Your task to perform on an android device: move an email to a new category in the gmail app Image 0: 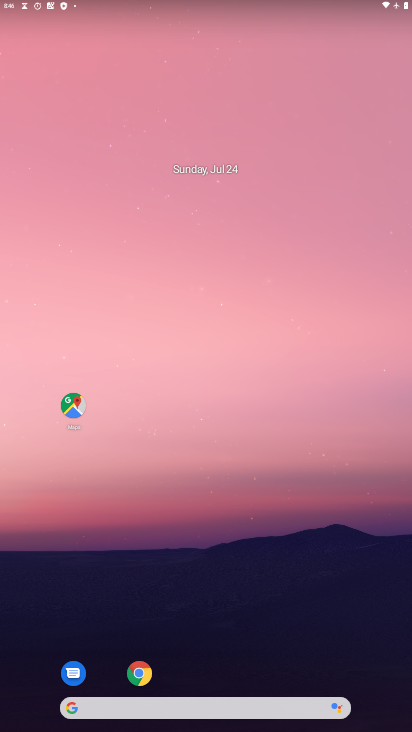
Step 0: drag from (207, 645) to (253, 33)
Your task to perform on an android device: move an email to a new category in the gmail app Image 1: 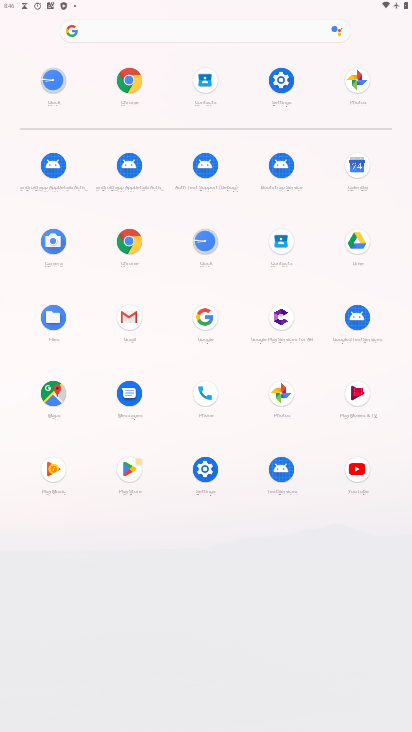
Step 1: click (132, 315)
Your task to perform on an android device: move an email to a new category in the gmail app Image 2: 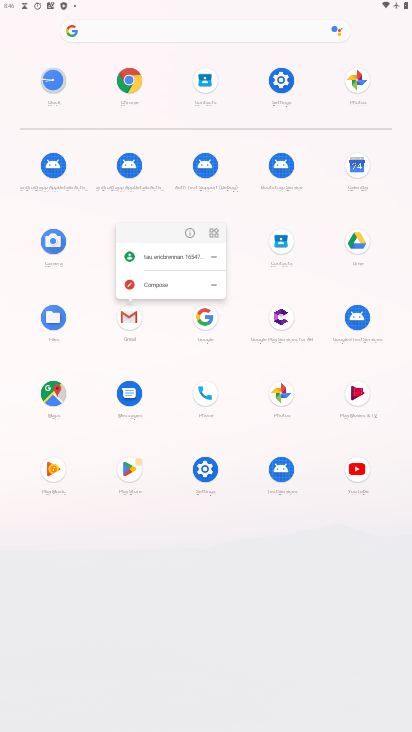
Step 2: click (188, 231)
Your task to perform on an android device: move an email to a new category in the gmail app Image 3: 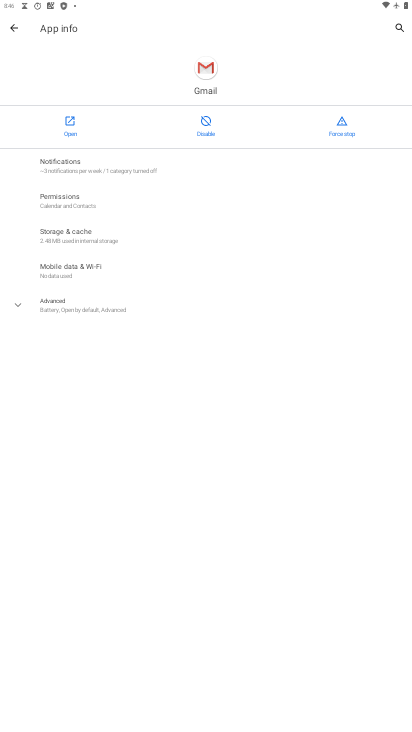
Step 3: click (58, 116)
Your task to perform on an android device: move an email to a new category in the gmail app Image 4: 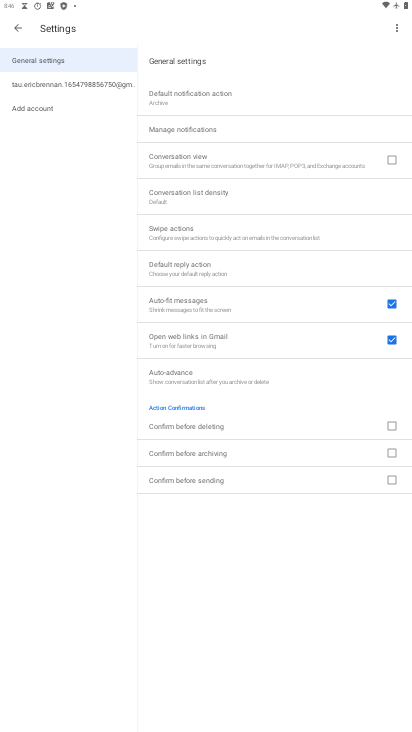
Step 4: drag from (203, 514) to (277, 82)
Your task to perform on an android device: move an email to a new category in the gmail app Image 5: 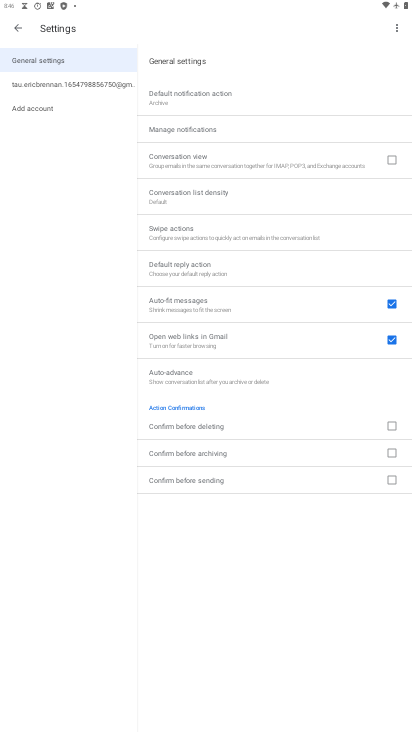
Step 5: click (63, 60)
Your task to perform on an android device: move an email to a new category in the gmail app Image 6: 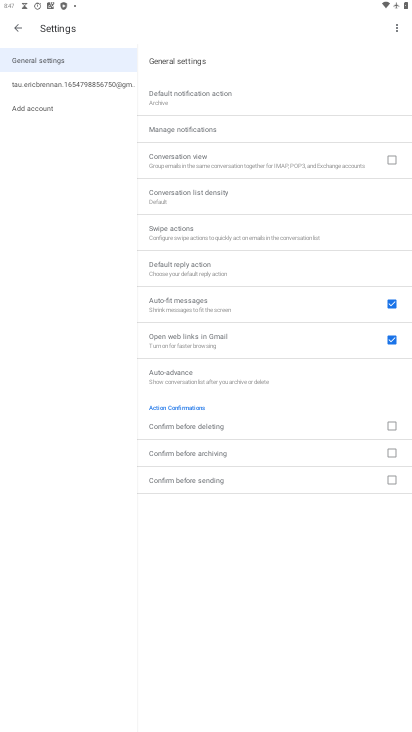
Step 6: click (36, 80)
Your task to perform on an android device: move an email to a new category in the gmail app Image 7: 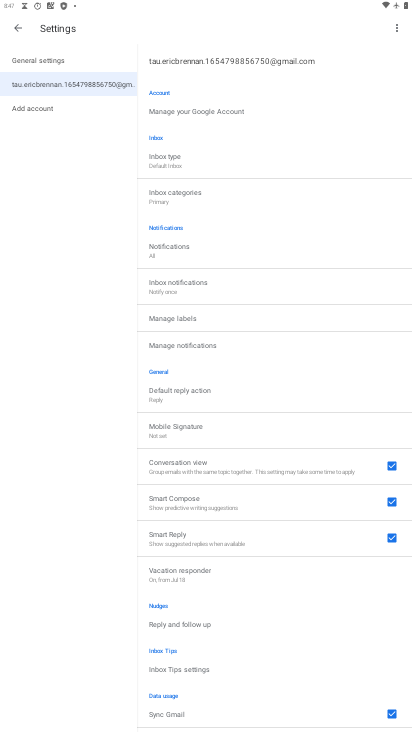
Step 7: drag from (279, 547) to (315, 406)
Your task to perform on an android device: move an email to a new category in the gmail app Image 8: 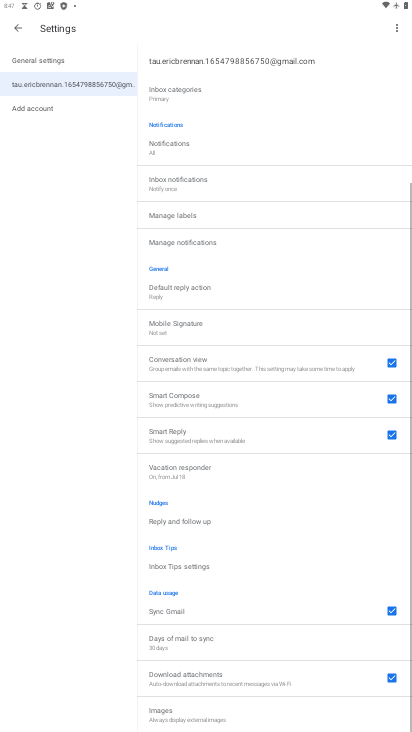
Step 8: drag from (270, 671) to (303, 347)
Your task to perform on an android device: move an email to a new category in the gmail app Image 9: 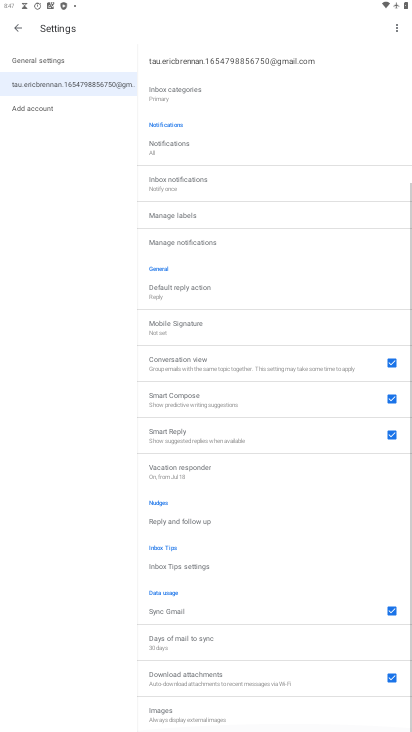
Step 9: drag from (316, 191) to (408, 411)
Your task to perform on an android device: move an email to a new category in the gmail app Image 10: 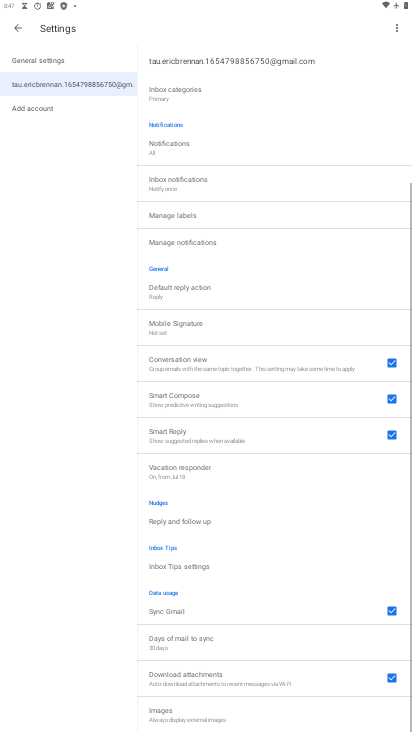
Step 10: drag from (235, 247) to (357, 719)
Your task to perform on an android device: move an email to a new category in the gmail app Image 11: 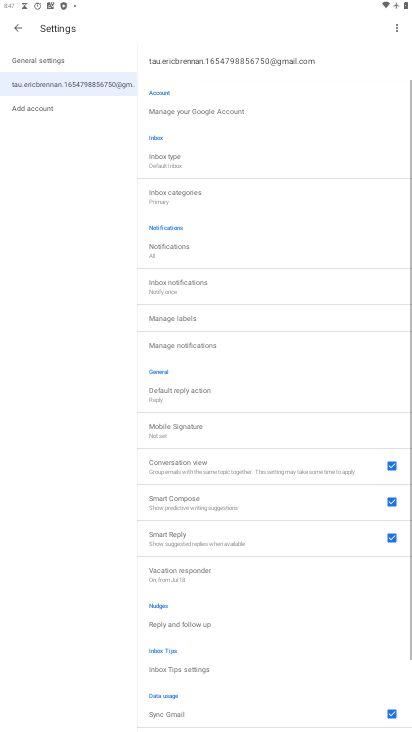
Step 11: drag from (282, 146) to (5, 379)
Your task to perform on an android device: move an email to a new category in the gmail app Image 12: 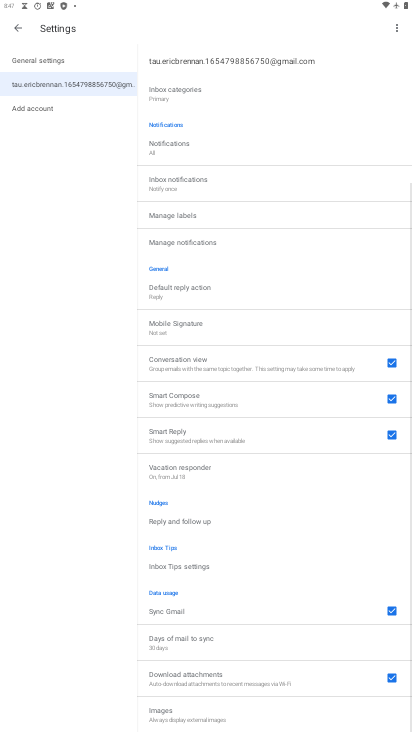
Step 12: click (14, 28)
Your task to perform on an android device: move an email to a new category in the gmail app Image 13: 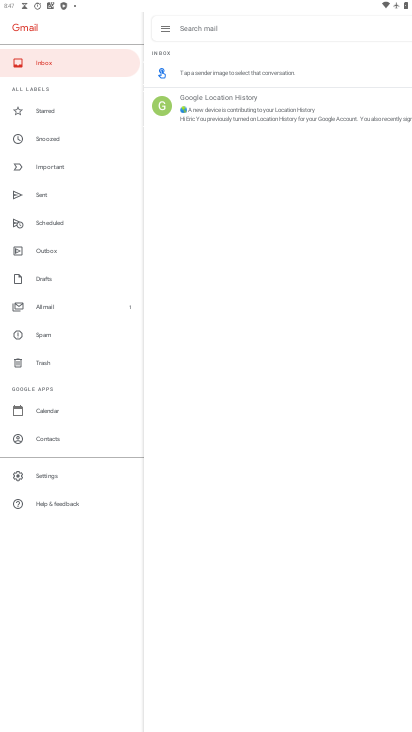
Step 13: click (49, 325)
Your task to perform on an android device: move an email to a new category in the gmail app Image 14: 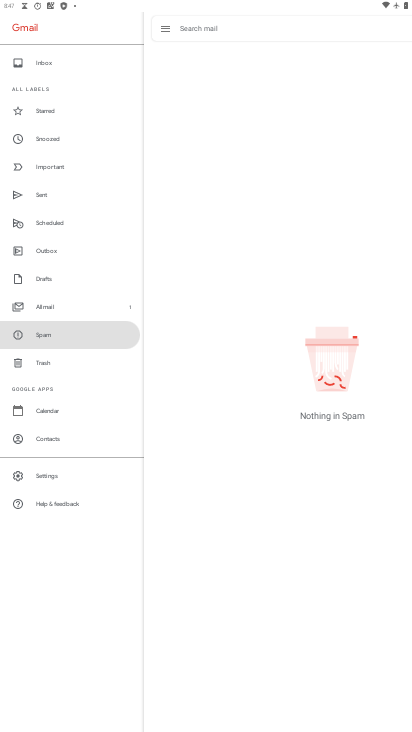
Step 14: drag from (193, 516) to (238, 144)
Your task to perform on an android device: move an email to a new category in the gmail app Image 15: 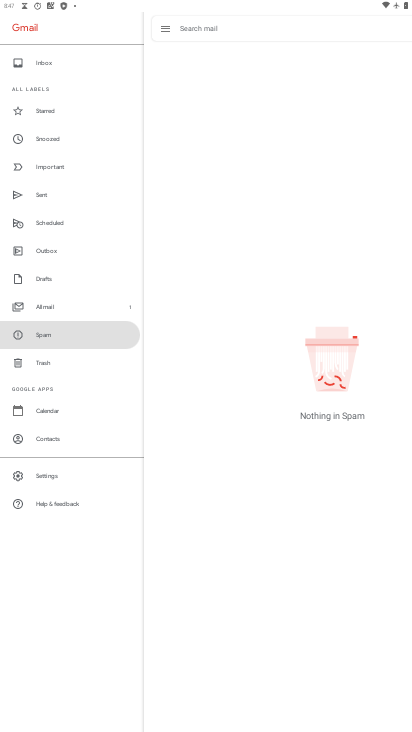
Step 15: click (52, 68)
Your task to perform on an android device: move an email to a new category in the gmail app Image 16: 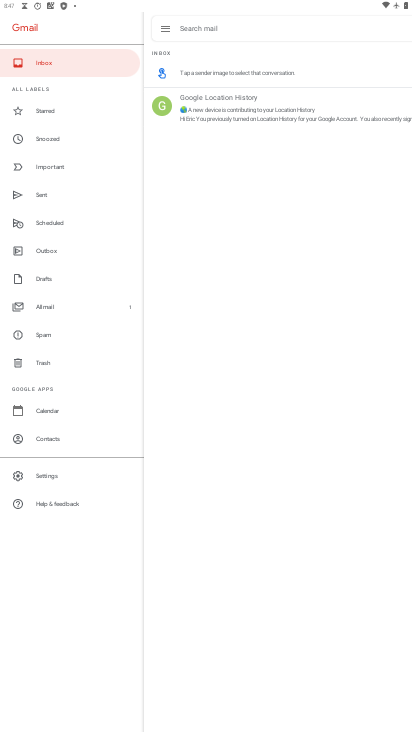
Step 16: drag from (201, 589) to (214, 365)
Your task to perform on an android device: move an email to a new category in the gmail app Image 17: 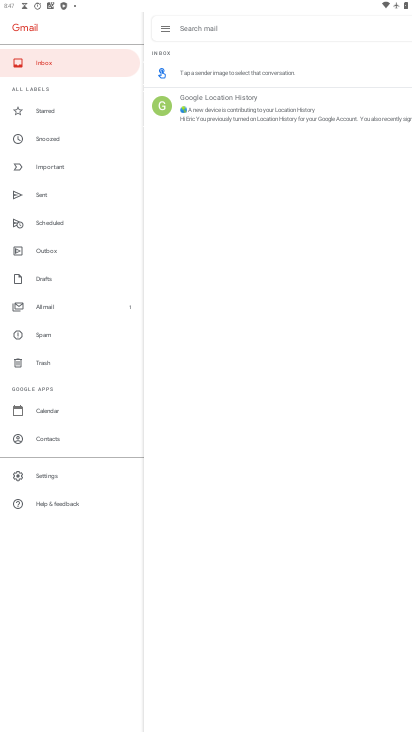
Step 17: click (262, 130)
Your task to perform on an android device: move an email to a new category in the gmail app Image 18: 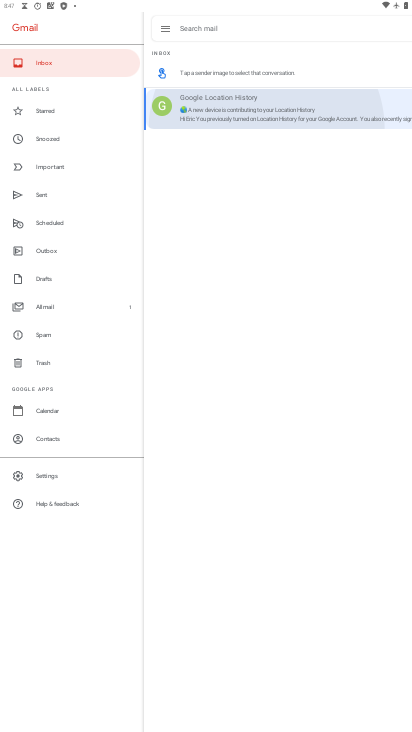
Step 18: task complete